Your task to perform on an android device: Search for vegetarian restaurants on Maps Image 0: 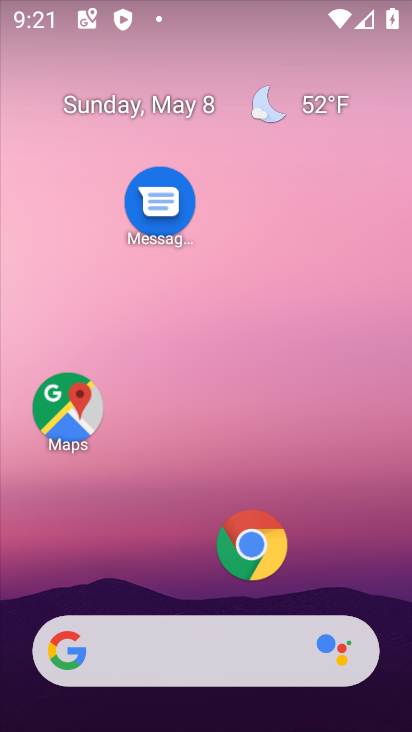
Step 0: drag from (198, 625) to (358, 11)
Your task to perform on an android device: Search for vegetarian restaurants on Maps Image 1: 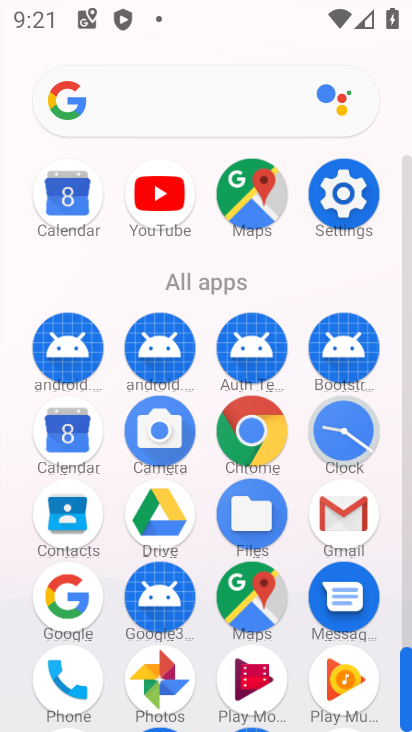
Step 1: click (250, 593)
Your task to perform on an android device: Search for vegetarian restaurants on Maps Image 2: 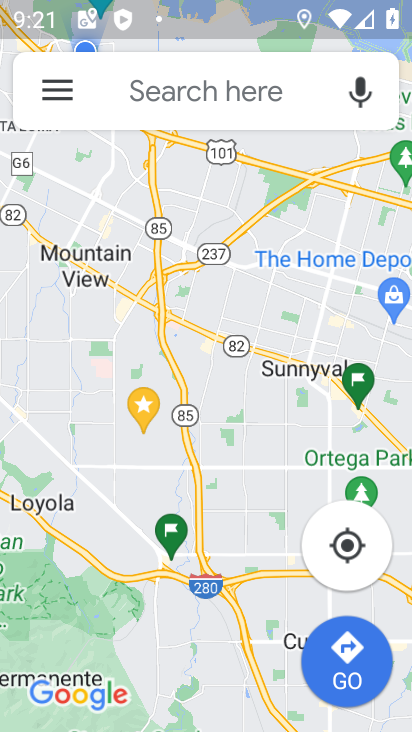
Step 2: click (201, 95)
Your task to perform on an android device: Search for vegetarian restaurants on Maps Image 3: 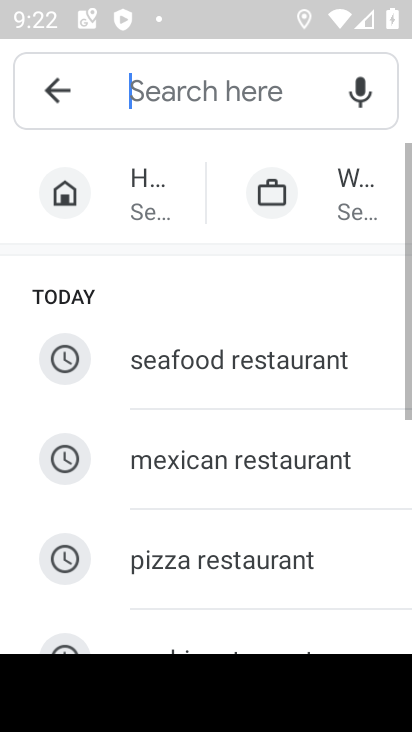
Step 3: drag from (248, 514) to (212, 184)
Your task to perform on an android device: Search for vegetarian restaurants on Maps Image 4: 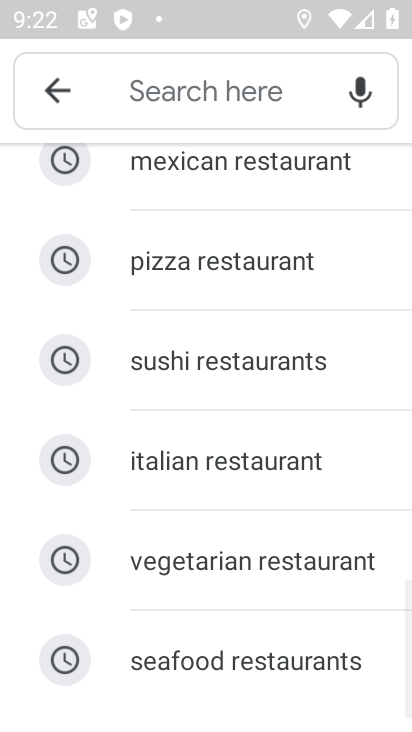
Step 4: click (213, 554)
Your task to perform on an android device: Search for vegetarian restaurants on Maps Image 5: 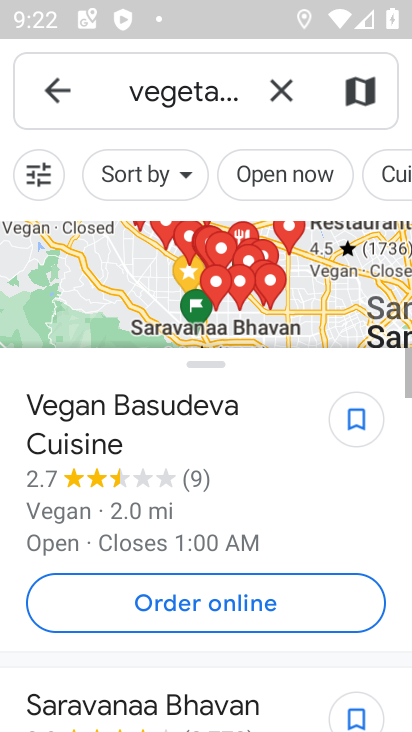
Step 5: task complete